Your task to perform on an android device: find which apps use the phone's location Image 0: 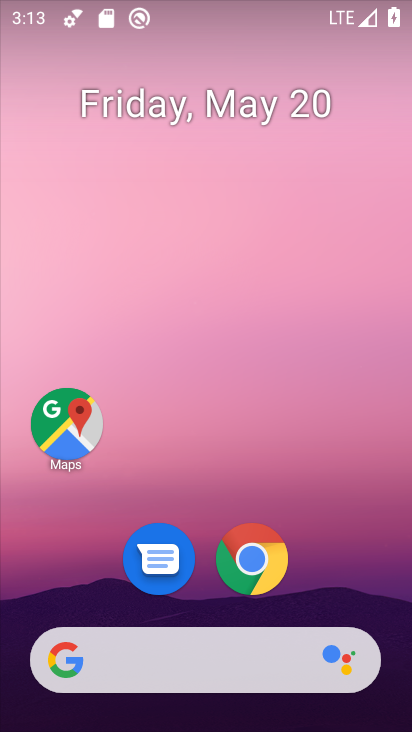
Step 0: drag from (212, 474) to (231, 33)
Your task to perform on an android device: find which apps use the phone's location Image 1: 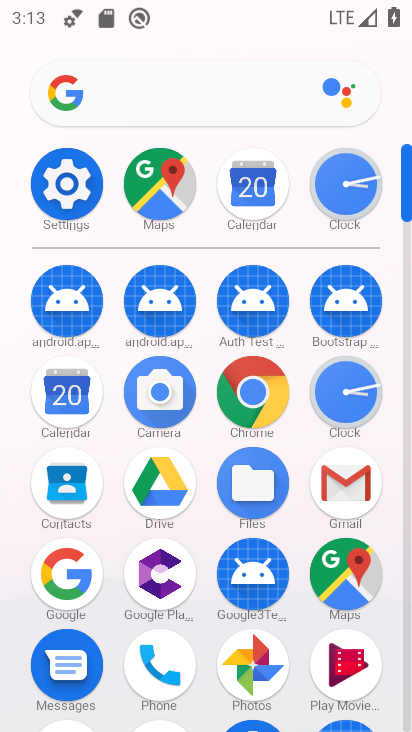
Step 1: click (78, 190)
Your task to perform on an android device: find which apps use the phone's location Image 2: 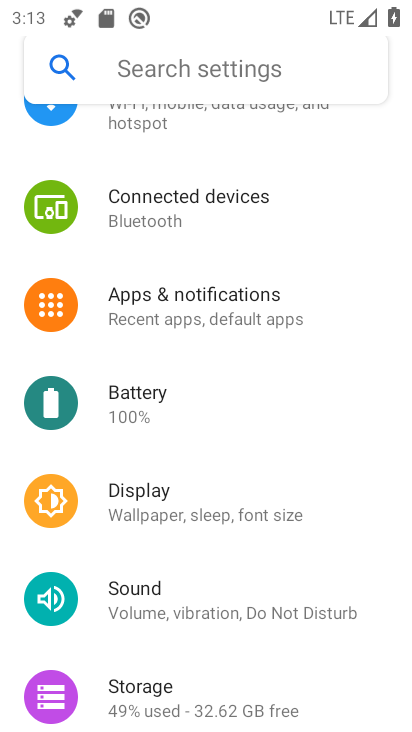
Step 2: drag from (214, 578) to (246, 122)
Your task to perform on an android device: find which apps use the phone's location Image 3: 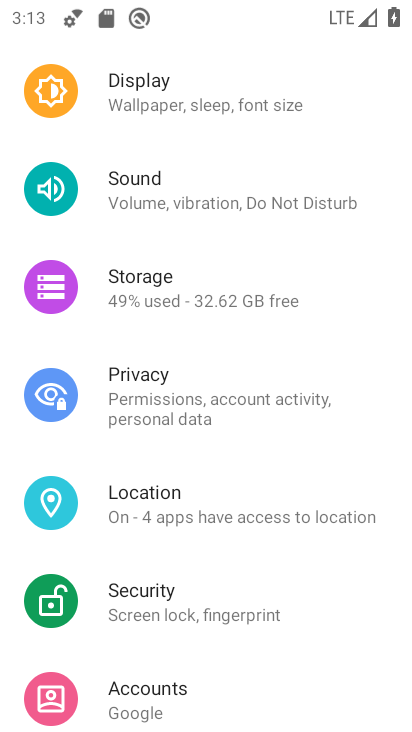
Step 3: click (201, 500)
Your task to perform on an android device: find which apps use the phone's location Image 4: 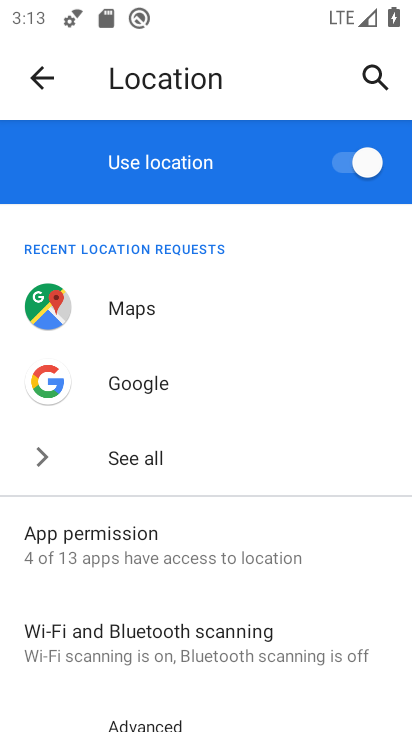
Step 4: click (218, 555)
Your task to perform on an android device: find which apps use the phone's location Image 5: 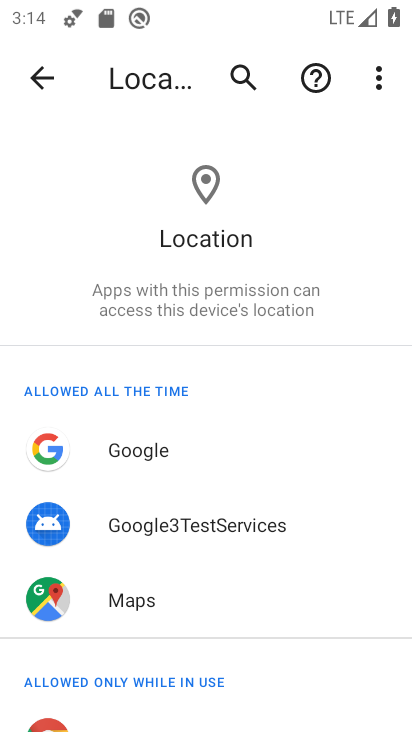
Step 5: task complete